Your task to perform on an android device: Open Google Chrome and open the bookmarks view Image 0: 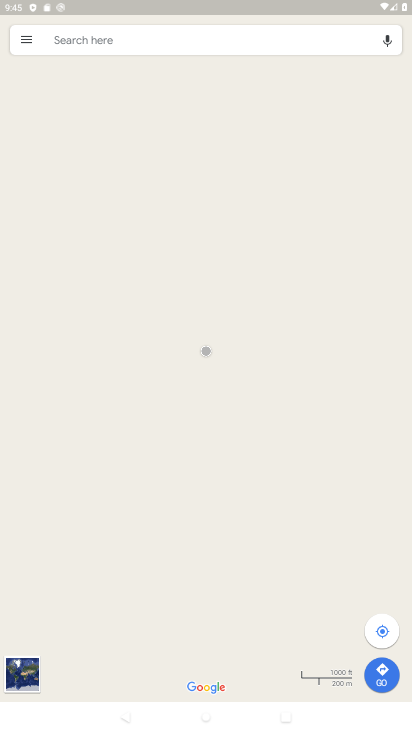
Step 0: press home button
Your task to perform on an android device: Open Google Chrome and open the bookmarks view Image 1: 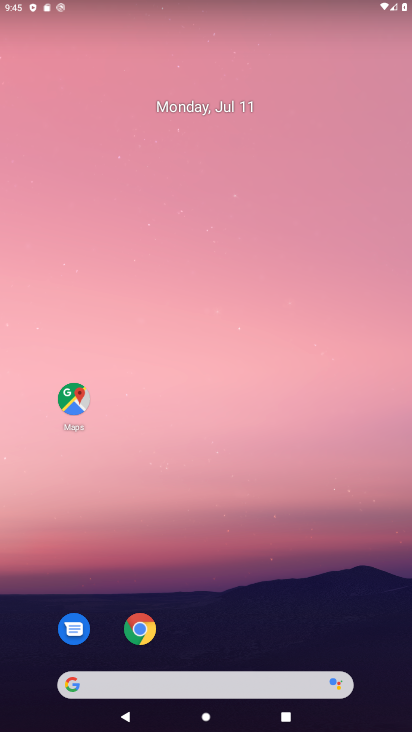
Step 1: drag from (284, 658) to (204, 538)
Your task to perform on an android device: Open Google Chrome and open the bookmarks view Image 2: 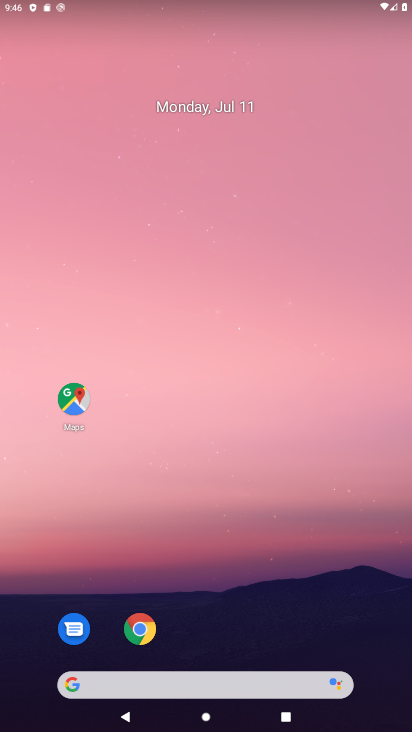
Step 2: click (139, 631)
Your task to perform on an android device: Open Google Chrome and open the bookmarks view Image 3: 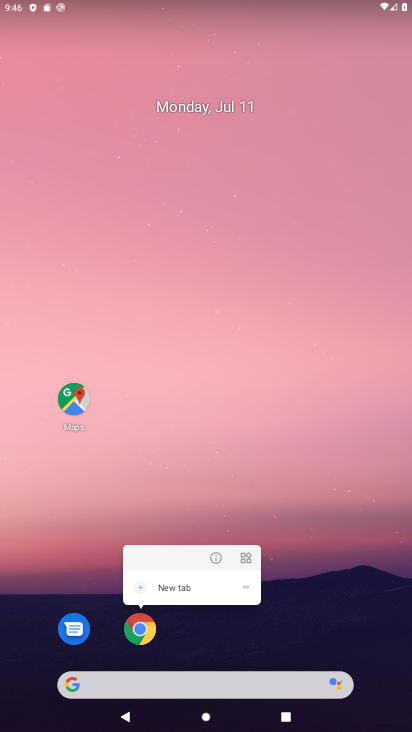
Step 3: click (151, 629)
Your task to perform on an android device: Open Google Chrome and open the bookmarks view Image 4: 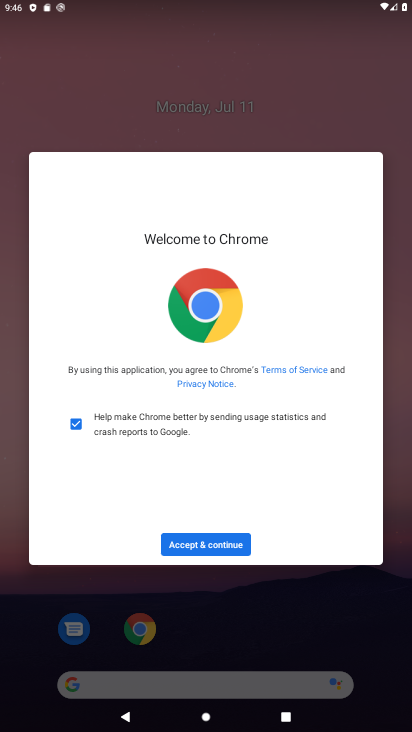
Step 4: click (227, 550)
Your task to perform on an android device: Open Google Chrome and open the bookmarks view Image 5: 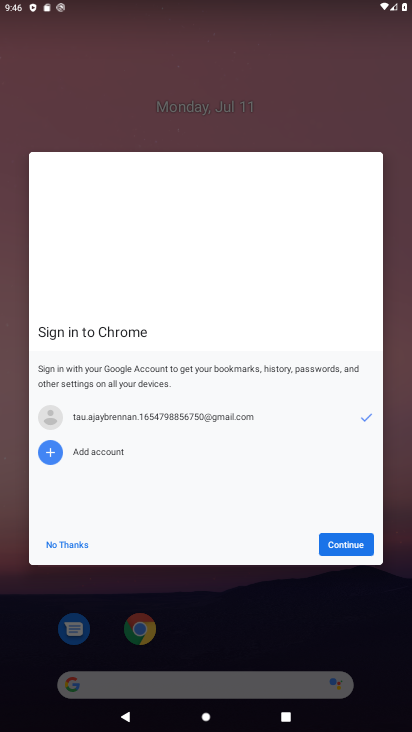
Step 5: click (356, 548)
Your task to perform on an android device: Open Google Chrome and open the bookmarks view Image 6: 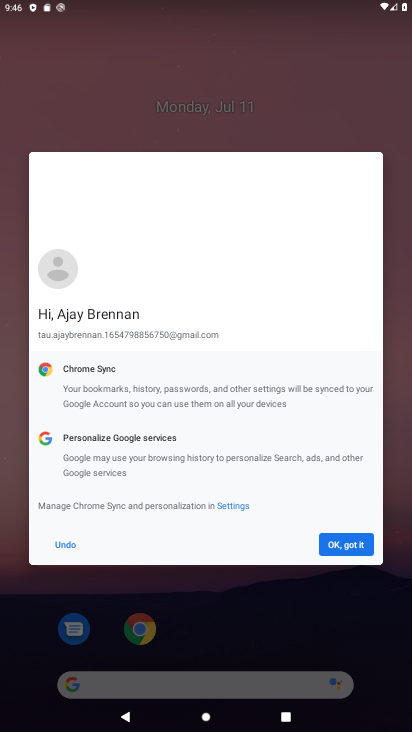
Step 6: click (355, 547)
Your task to perform on an android device: Open Google Chrome and open the bookmarks view Image 7: 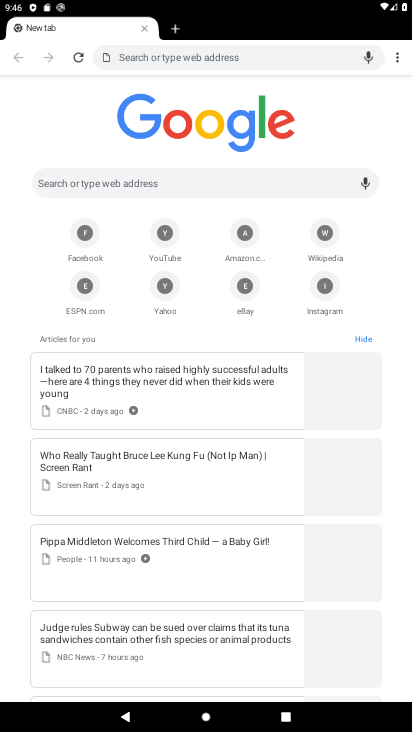
Step 7: click (403, 54)
Your task to perform on an android device: Open Google Chrome and open the bookmarks view Image 8: 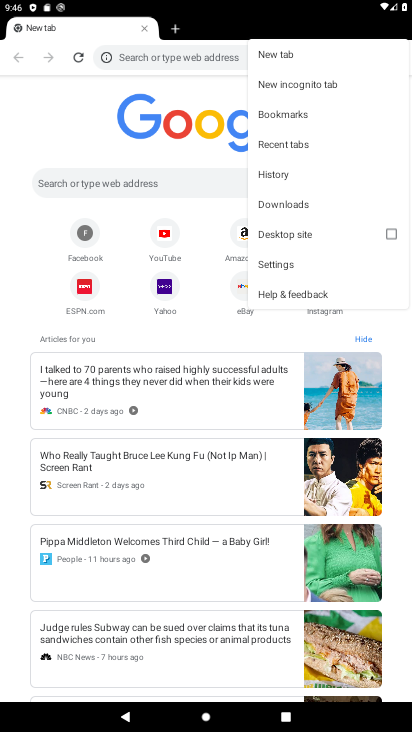
Step 8: click (282, 114)
Your task to perform on an android device: Open Google Chrome and open the bookmarks view Image 9: 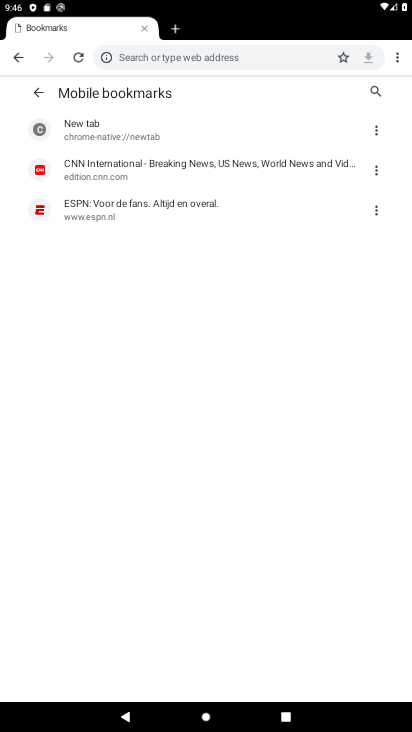
Step 9: task complete